Your task to perform on an android device: check storage Image 0: 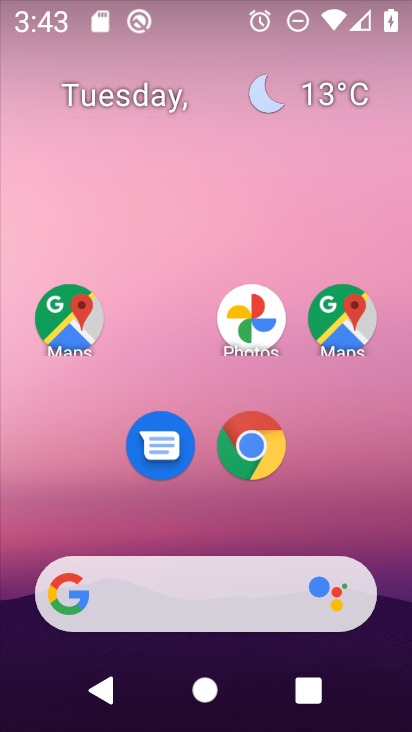
Step 0: drag from (389, 535) to (389, 231)
Your task to perform on an android device: check storage Image 1: 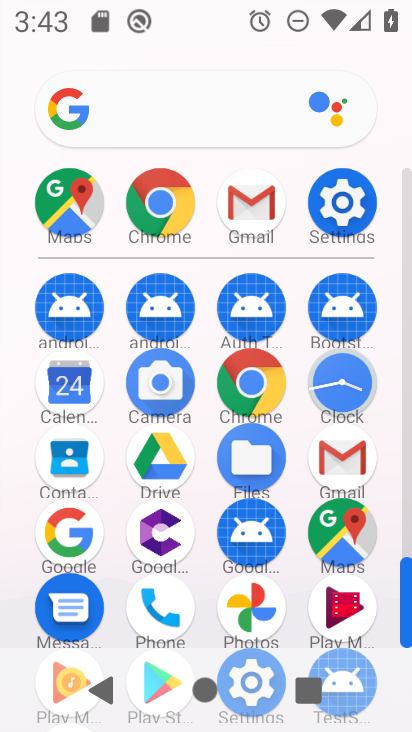
Step 1: click (360, 224)
Your task to perform on an android device: check storage Image 2: 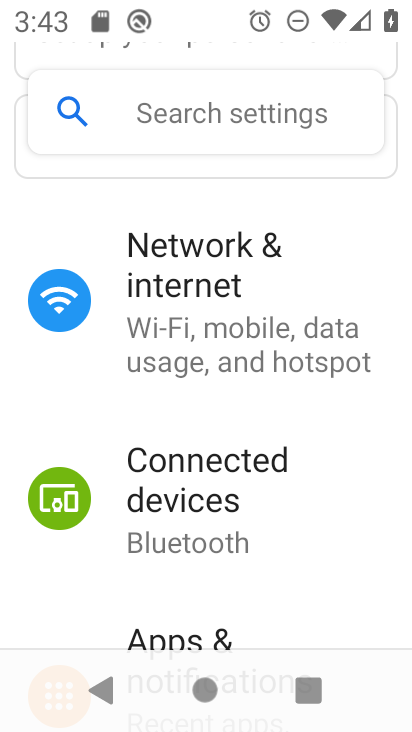
Step 2: drag from (366, 467) to (377, 396)
Your task to perform on an android device: check storage Image 3: 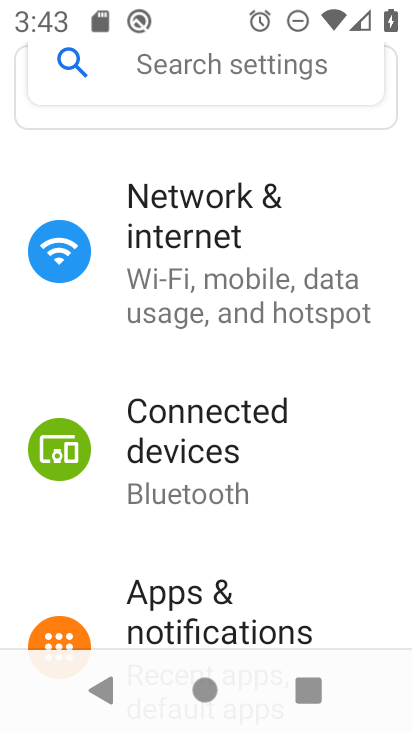
Step 3: drag from (373, 487) to (376, 400)
Your task to perform on an android device: check storage Image 4: 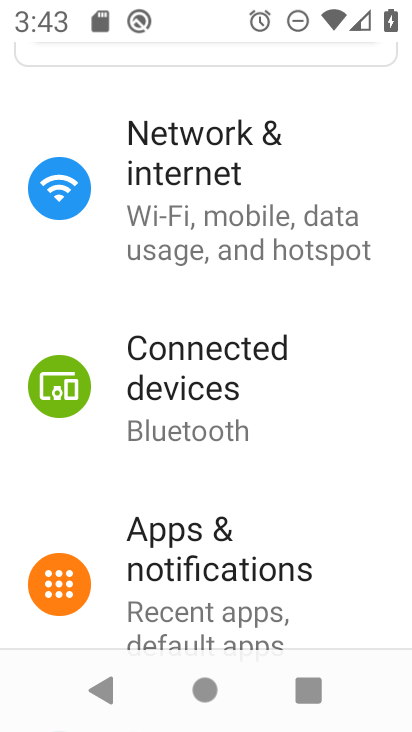
Step 4: drag from (371, 495) to (378, 427)
Your task to perform on an android device: check storage Image 5: 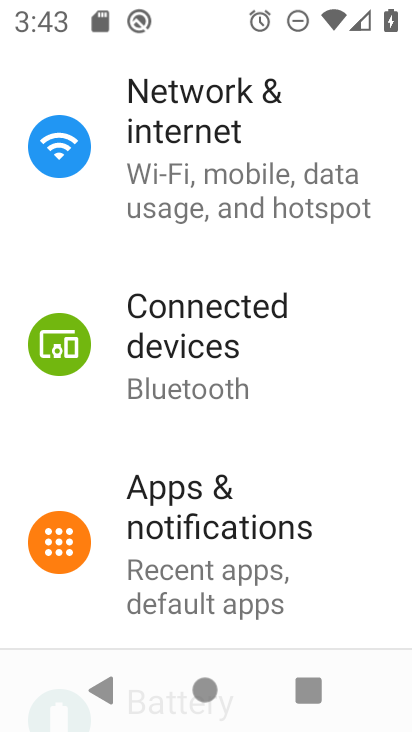
Step 5: drag from (376, 494) to (375, 416)
Your task to perform on an android device: check storage Image 6: 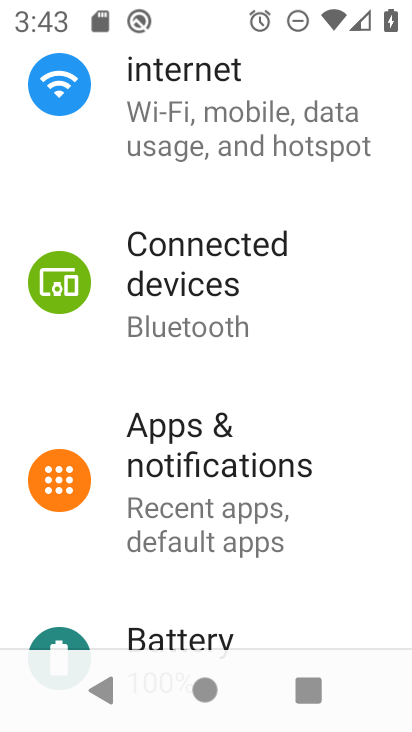
Step 6: drag from (364, 503) to (365, 449)
Your task to perform on an android device: check storage Image 7: 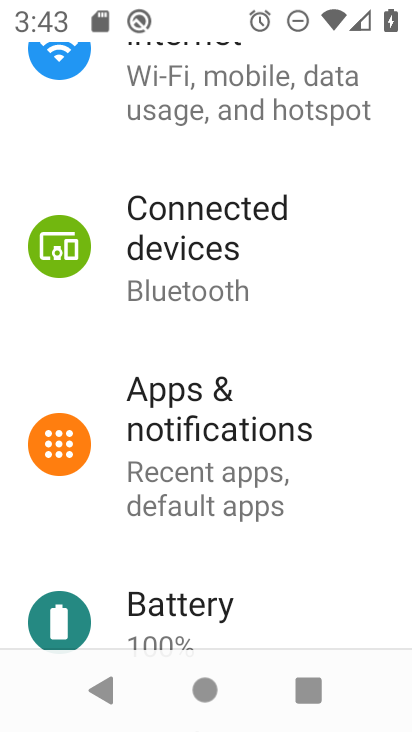
Step 7: drag from (361, 492) to (367, 444)
Your task to perform on an android device: check storage Image 8: 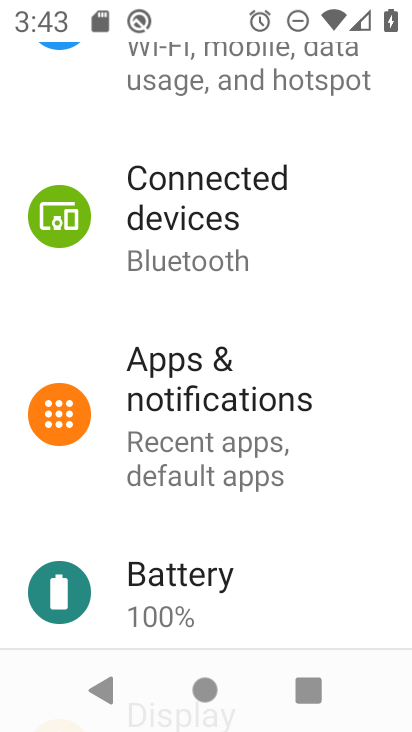
Step 8: drag from (372, 486) to (372, 439)
Your task to perform on an android device: check storage Image 9: 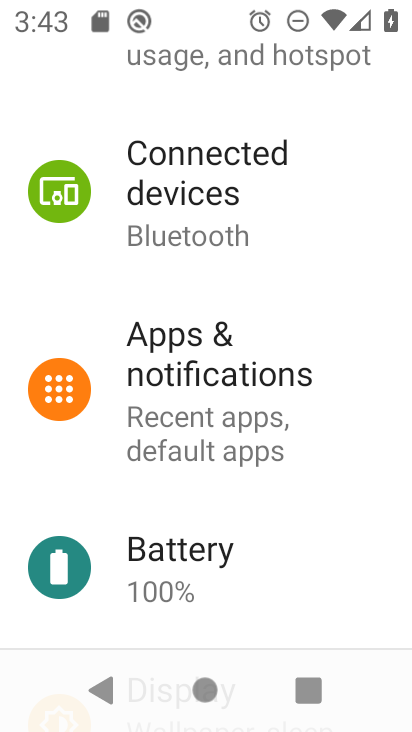
Step 9: drag from (362, 512) to (369, 452)
Your task to perform on an android device: check storage Image 10: 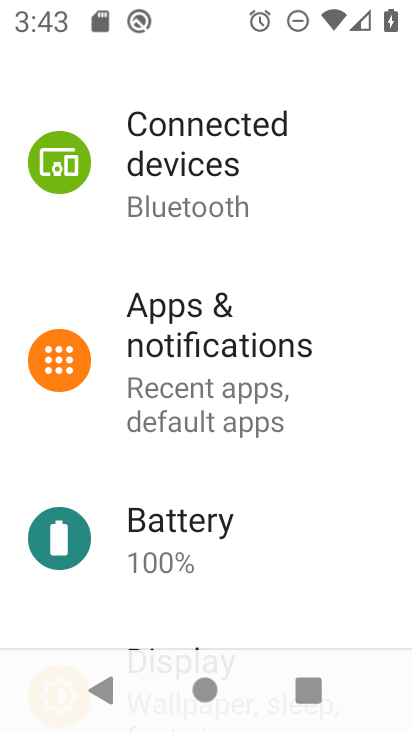
Step 10: drag from (360, 505) to (369, 446)
Your task to perform on an android device: check storage Image 11: 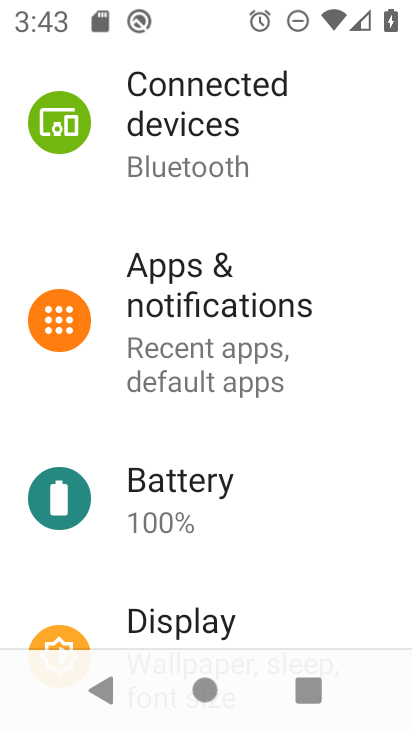
Step 11: drag from (364, 532) to (379, 438)
Your task to perform on an android device: check storage Image 12: 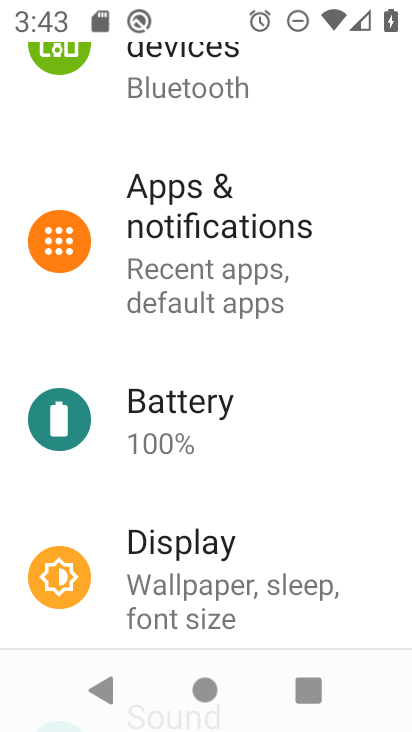
Step 12: drag from (348, 552) to (363, 477)
Your task to perform on an android device: check storage Image 13: 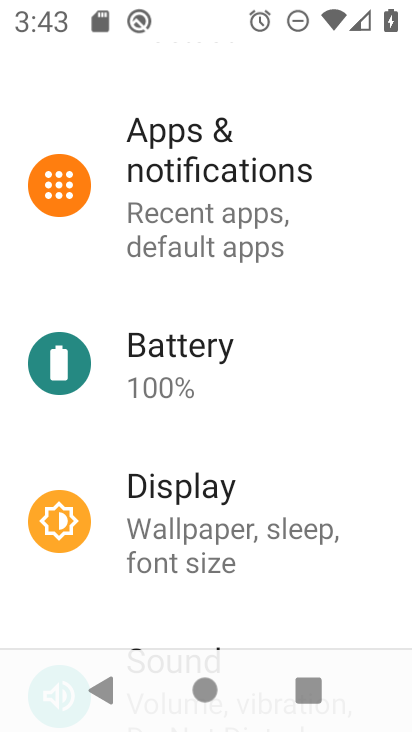
Step 13: drag from (357, 543) to (358, 470)
Your task to perform on an android device: check storage Image 14: 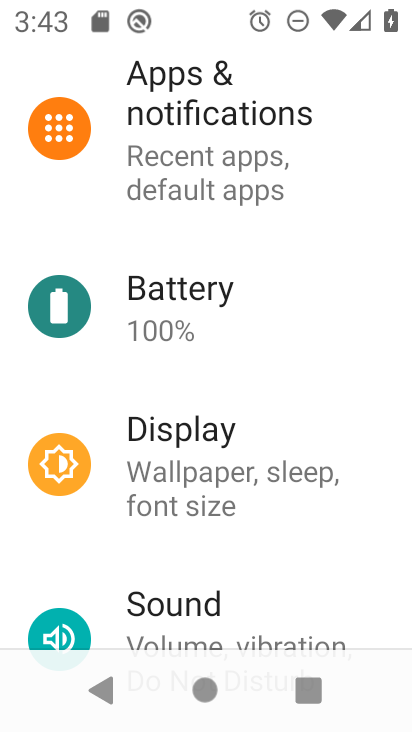
Step 14: drag from (361, 549) to (367, 472)
Your task to perform on an android device: check storage Image 15: 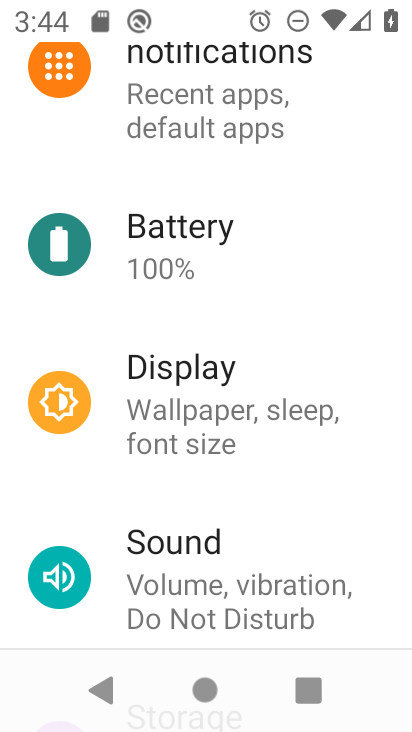
Step 15: drag from (369, 563) to (370, 464)
Your task to perform on an android device: check storage Image 16: 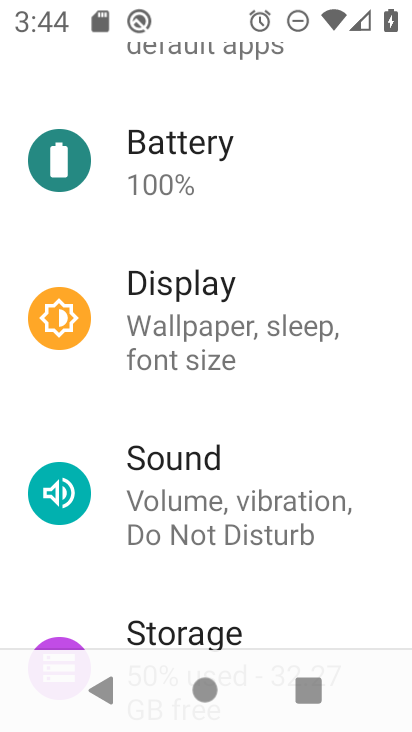
Step 16: drag from (361, 590) to (361, 495)
Your task to perform on an android device: check storage Image 17: 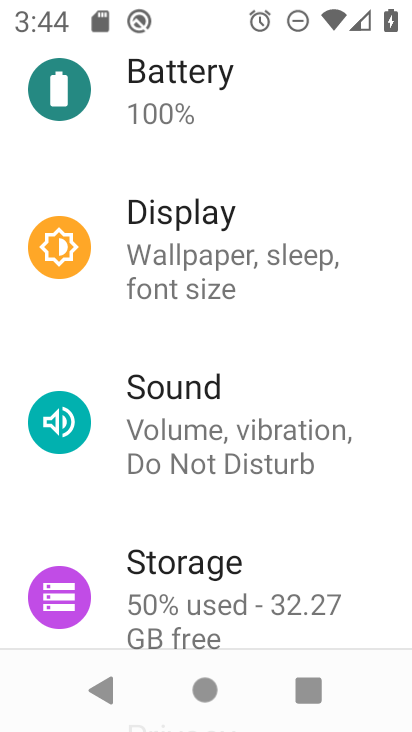
Step 17: drag from (355, 580) to (361, 488)
Your task to perform on an android device: check storage Image 18: 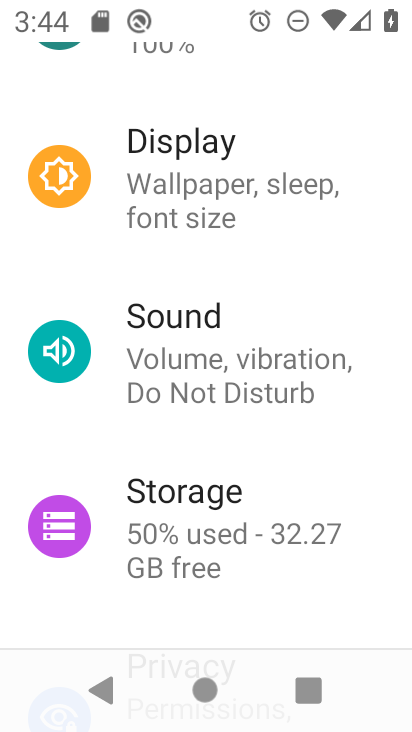
Step 18: click (318, 532)
Your task to perform on an android device: check storage Image 19: 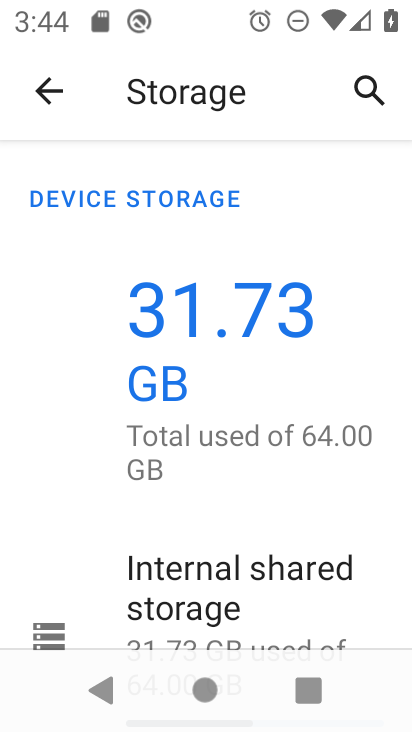
Step 19: task complete